Your task to perform on an android device: Open Wikipedia Image 0: 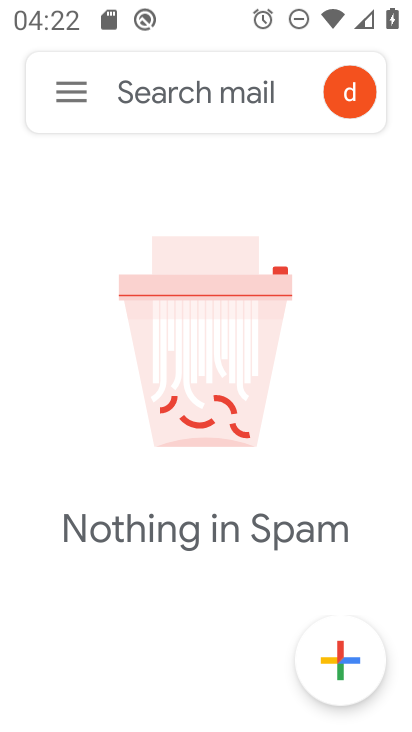
Step 0: press home button
Your task to perform on an android device: Open Wikipedia Image 1: 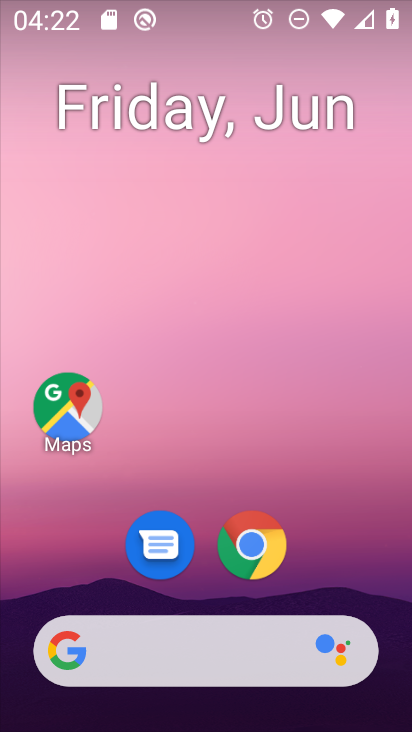
Step 1: click (246, 534)
Your task to perform on an android device: Open Wikipedia Image 2: 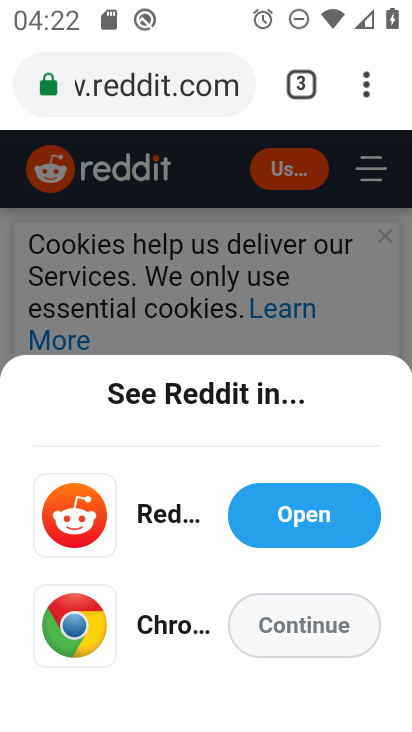
Step 2: click (142, 85)
Your task to perform on an android device: Open Wikipedia Image 3: 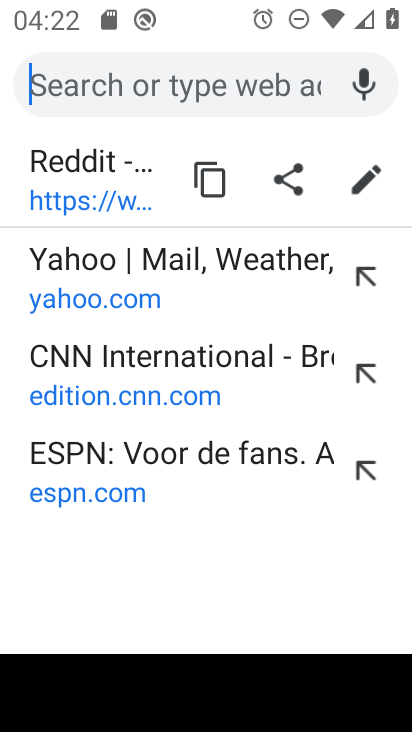
Step 3: type "wikipedia"
Your task to perform on an android device: Open Wikipedia Image 4: 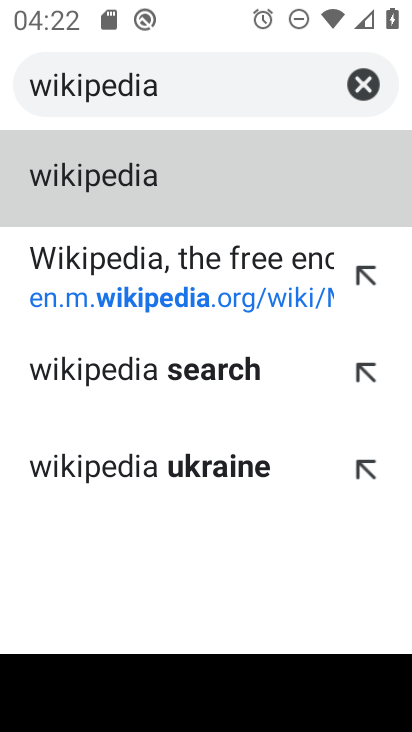
Step 4: click (64, 150)
Your task to perform on an android device: Open Wikipedia Image 5: 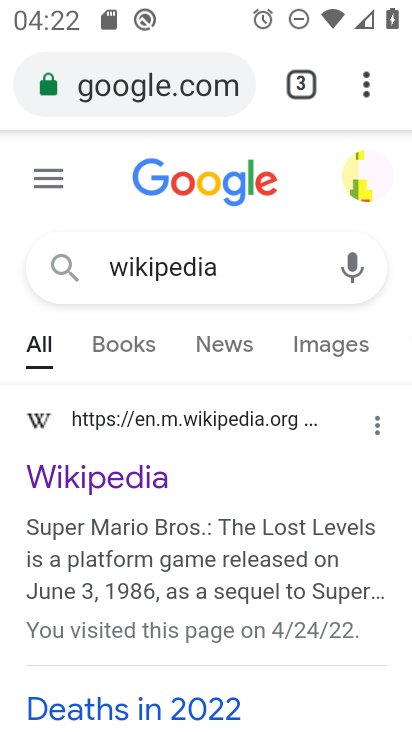
Step 5: click (88, 475)
Your task to perform on an android device: Open Wikipedia Image 6: 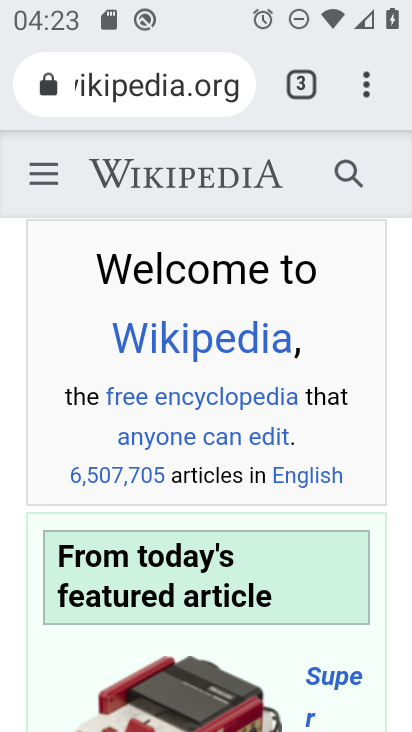
Step 6: task complete